Your task to perform on an android device: Go to Wikipedia Image 0: 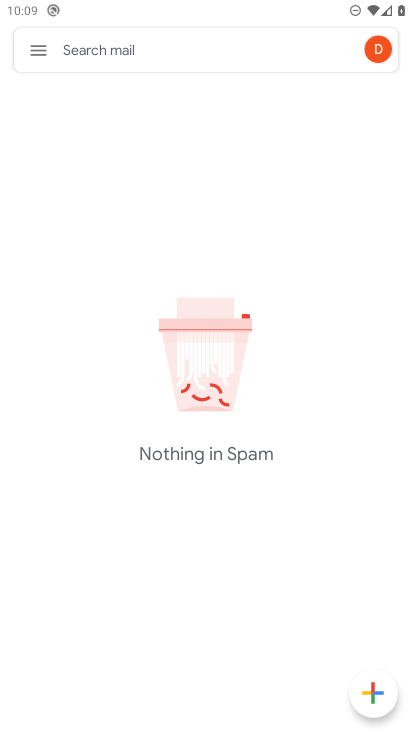
Step 0: press home button
Your task to perform on an android device: Go to Wikipedia Image 1: 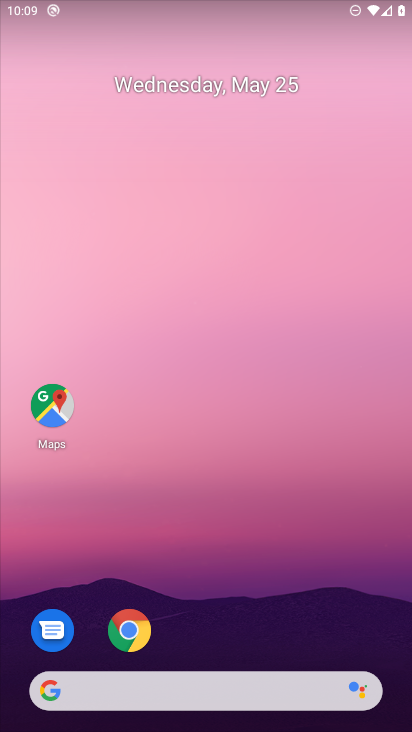
Step 1: click (140, 631)
Your task to perform on an android device: Go to Wikipedia Image 2: 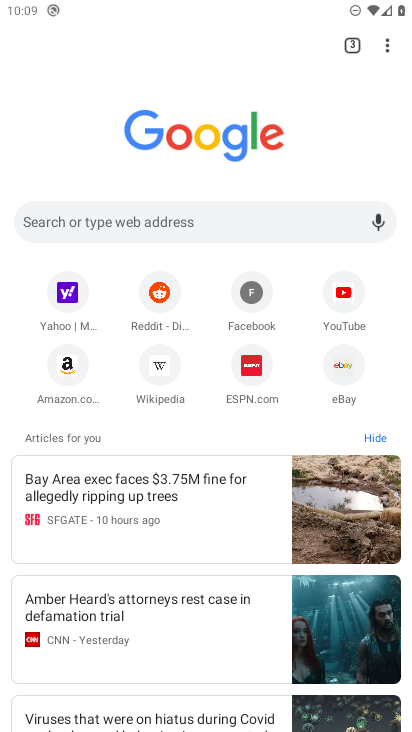
Step 2: click (159, 377)
Your task to perform on an android device: Go to Wikipedia Image 3: 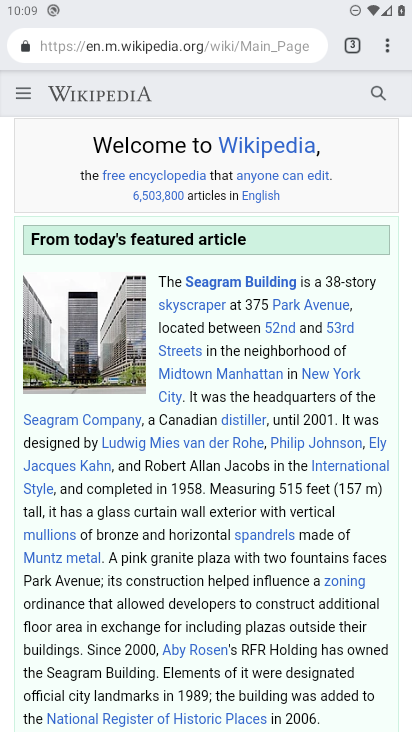
Step 3: task complete